Your task to perform on an android device: Open my contact list Image 0: 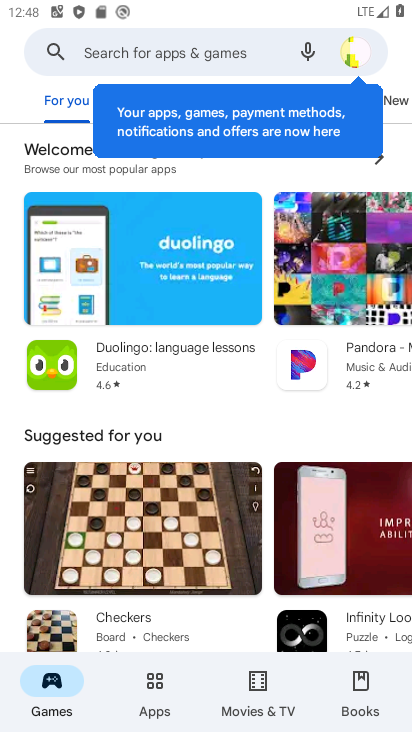
Step 0: press home button
Your task to perform on an android device: Open my contact list Image 1: 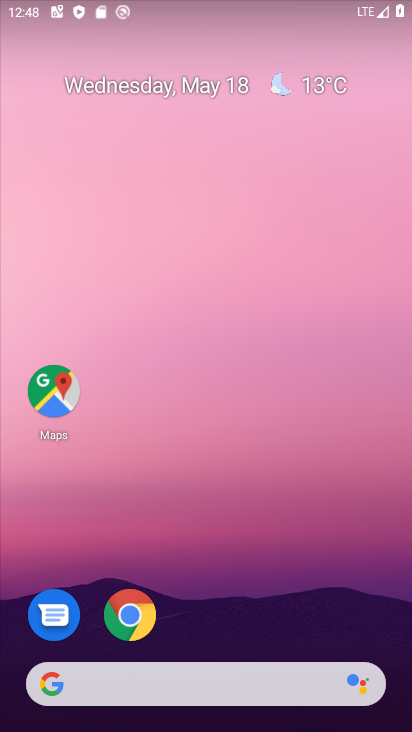
Step 1: drag from (173, 680) to (326, 60)
Your task to perform on an android device: Open my contact list Image 2: 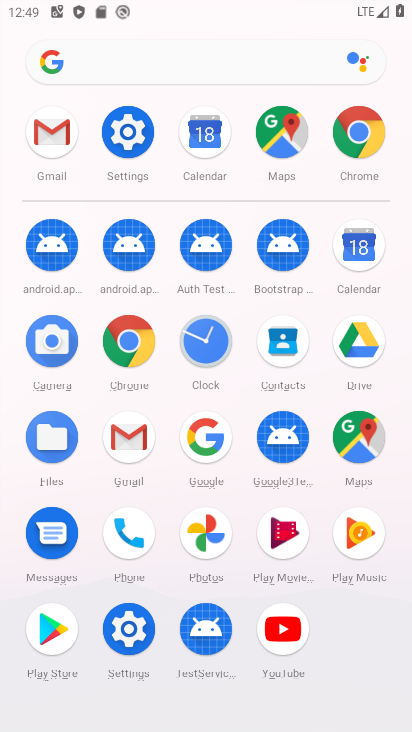
Step 2: click (280, 351)
Your task to perform on an android device: Open my contact list Image 3: 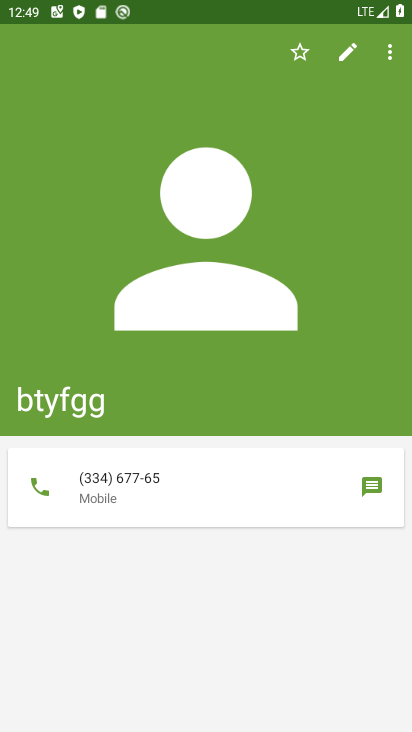
Step 3: task complete